Your task to perform on an android device: move an email to a new category in the gmail app Image 0: 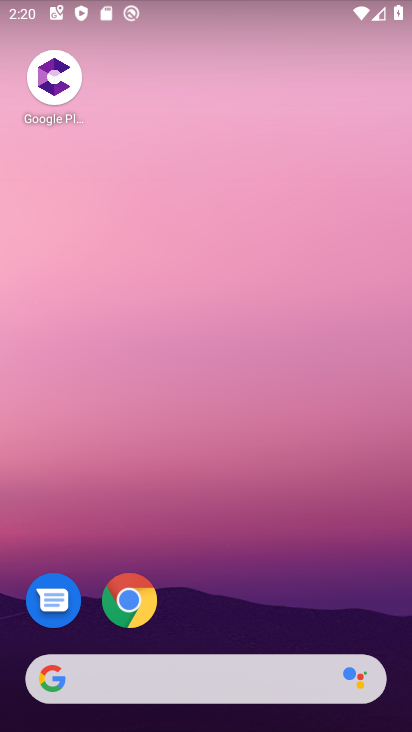
Step 0: drag from (54, 460) to (238, 151)
Your task to perform on an android device: move an email to a new category in the gmail app Image 1: 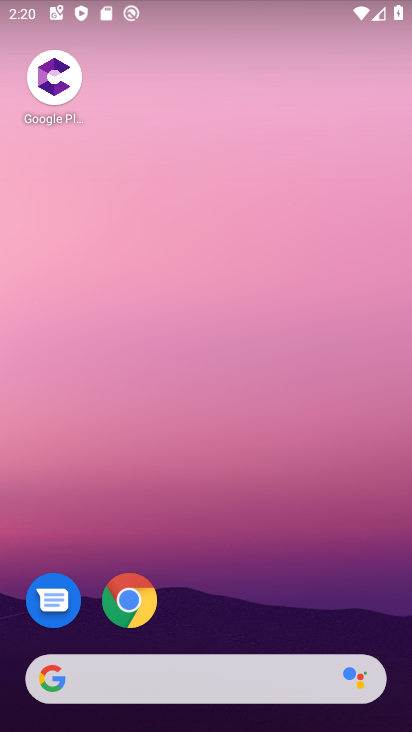
Step 1: task complete